Your task to perform on an android device: Open calendar and show me the third week of next month Image 0: 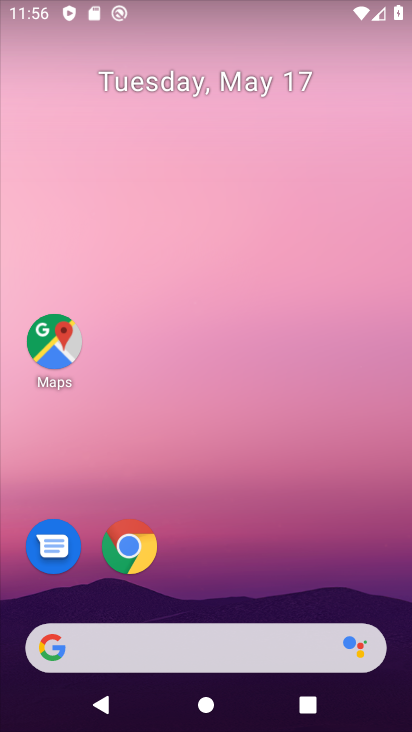
Step 0: drag from (210, 602) to (311, 147)
Your task to perform on an android device: Open calendar and show me the third week of next month Image 1: 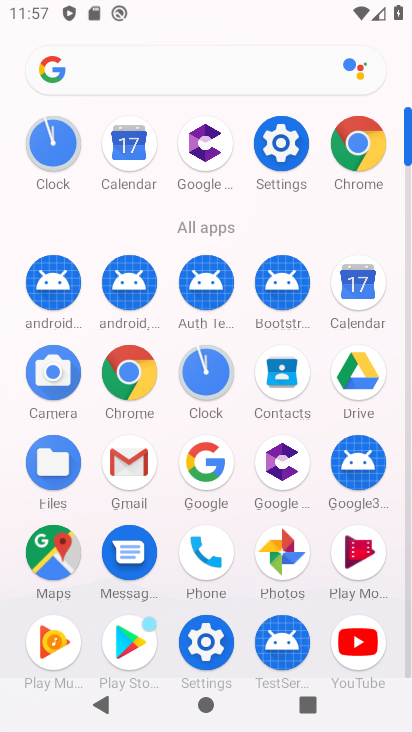
Step 1: click (350, 303)
Your task to perform on an android device: Open calendar and show me the third week of next month Image 2: 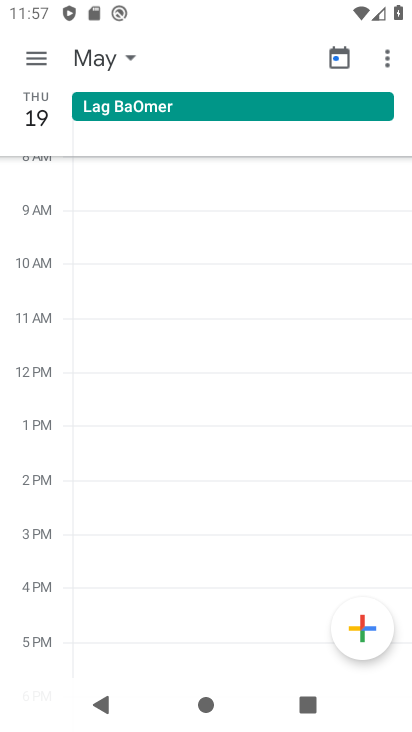
Step 2: click (112, 62)
Your task to perform on an android device: Open calendar and show me the third week of next month Image 3: 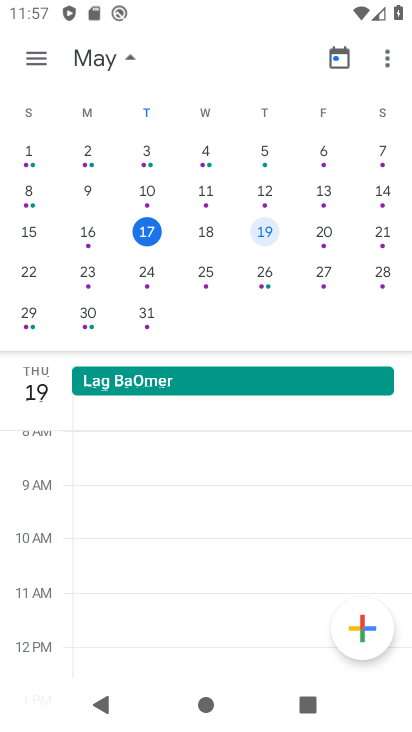
Step 3: drag from (355, 307) to (5, 300)
Your task to perform on an android device: Open calendar and show me the third week of next month Image 4: 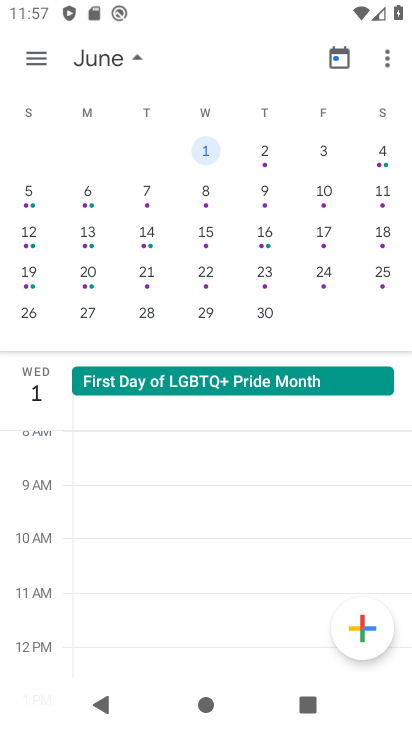
Step 4: click (31, 278)
Your task to perform on an android device: Open calendar and show me the third week of next month Image 5: 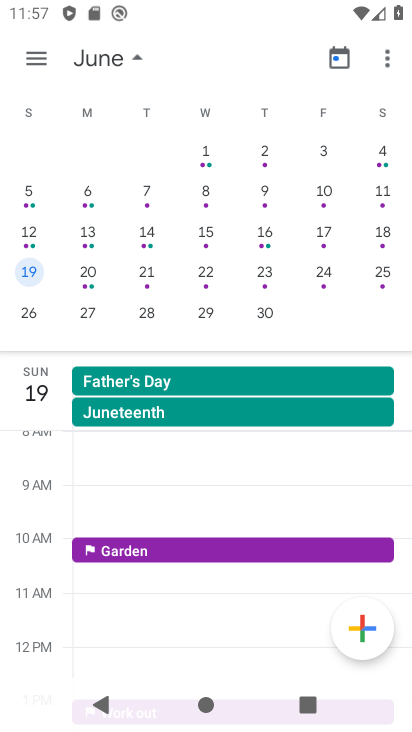
Step 5: click (53, 64)
Your task to perform on an android device: Open calendar and show me the third week of next month Image 6: 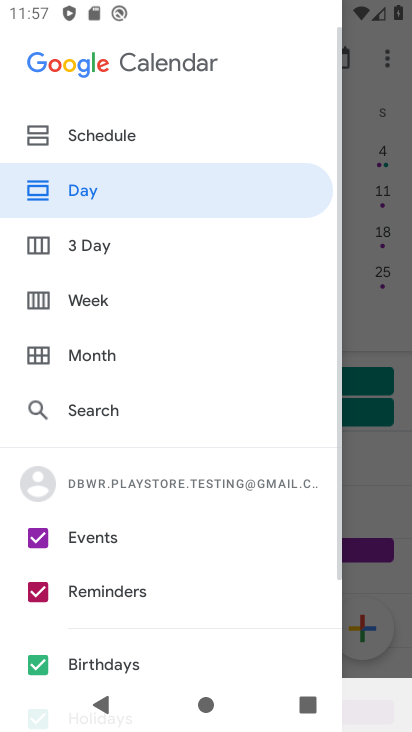
Step 6: click (162, 309)
Your task to perform on an android device: Open calendar and show me the third week of next month Image 7: 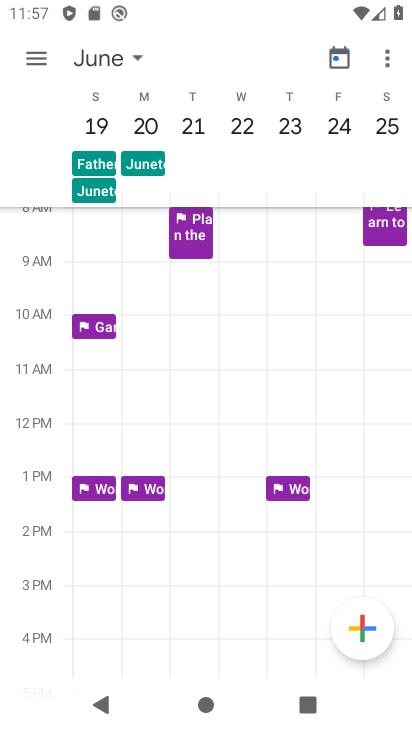
Step 7: task complete